Your task to perform on an android device: change the upload size in google photos Image 0: 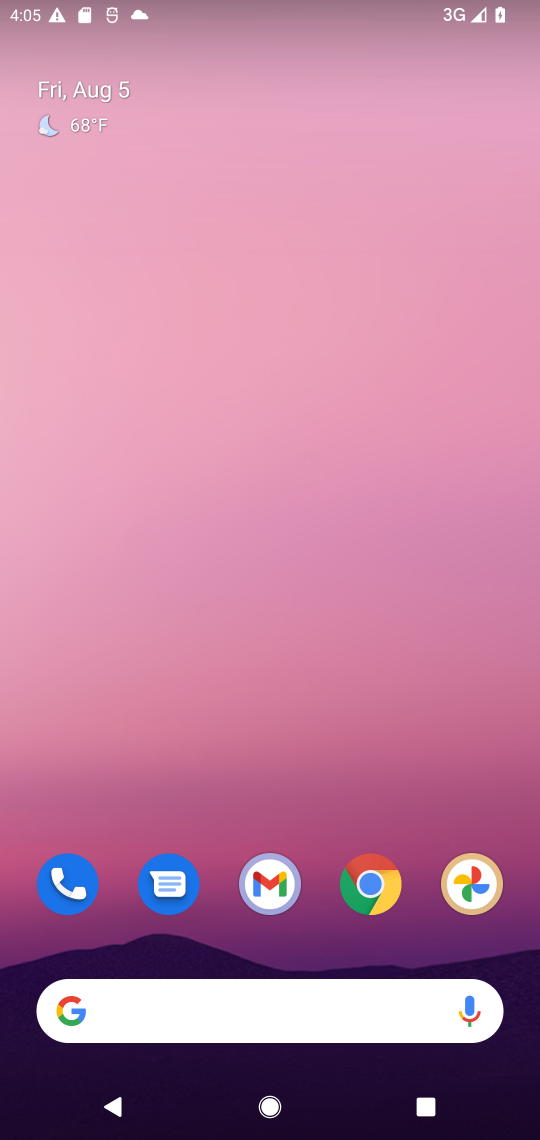
Step 0: drag from (415, 756) to (251, 105)
Your task to perform on an android device: change the upload size in google photos Image 1: 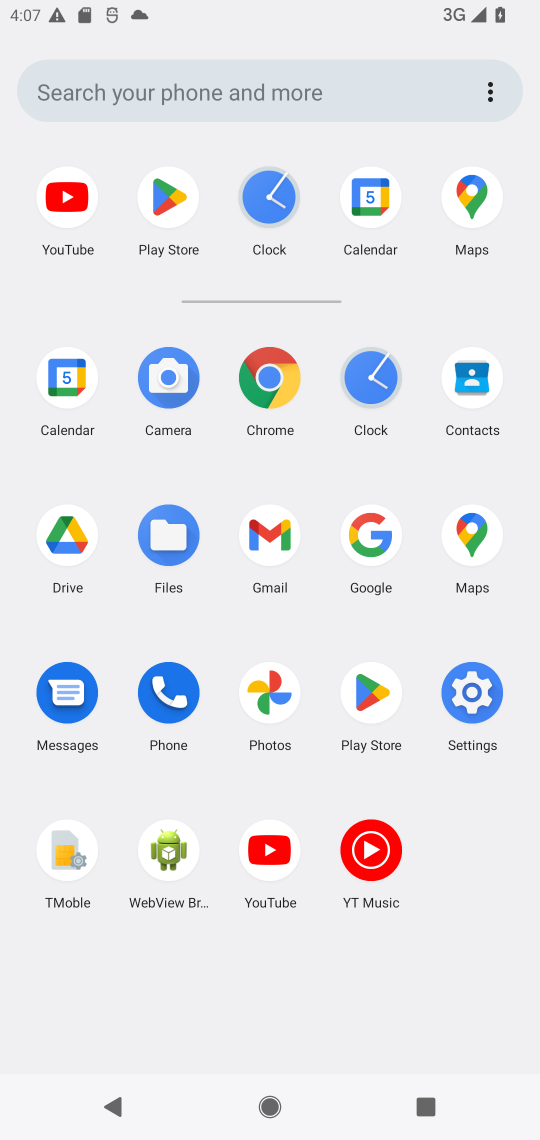
Step 1: click (267, 664)
Your task to perform on an android device: change the upload size in google photos Image 2: 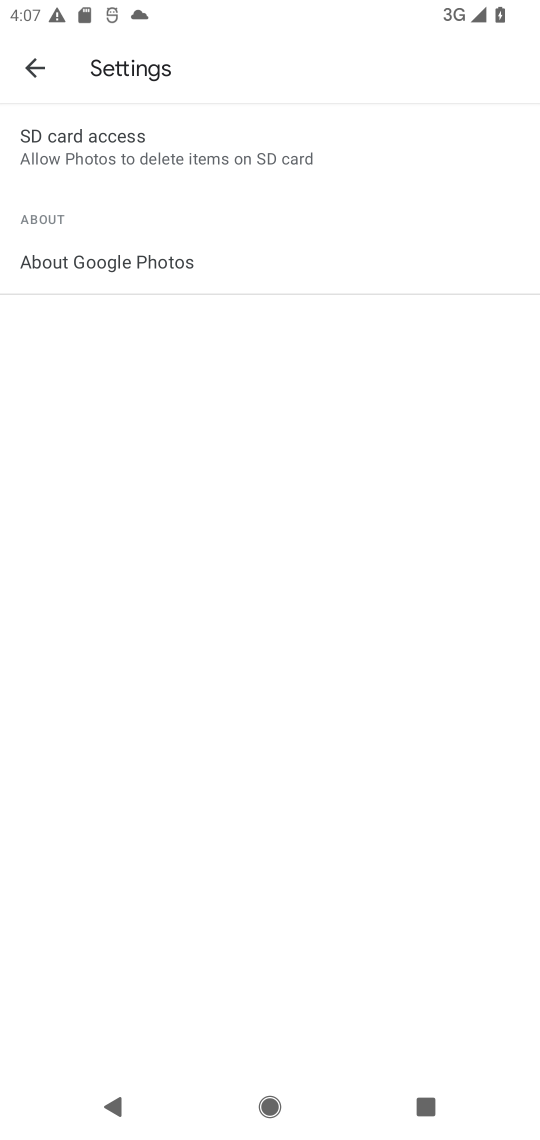
Step 2: task complete